Your task to perform on an android device: turn off sleep mode Image 0: 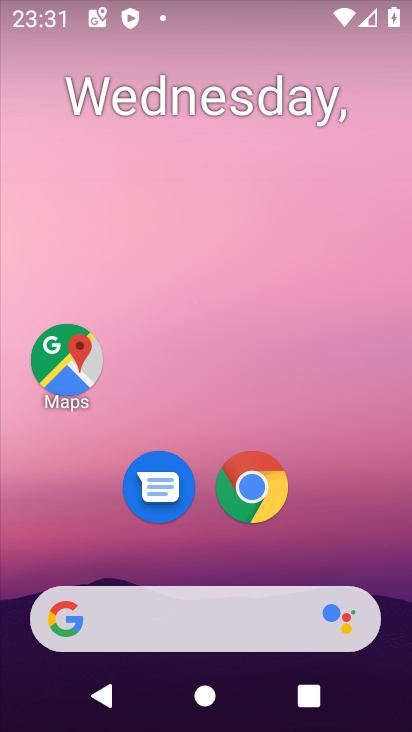
Step 0: drag from (373, 585) to (385, 5)
Your task to perform on an android device: turn off sleep mode Image 1: 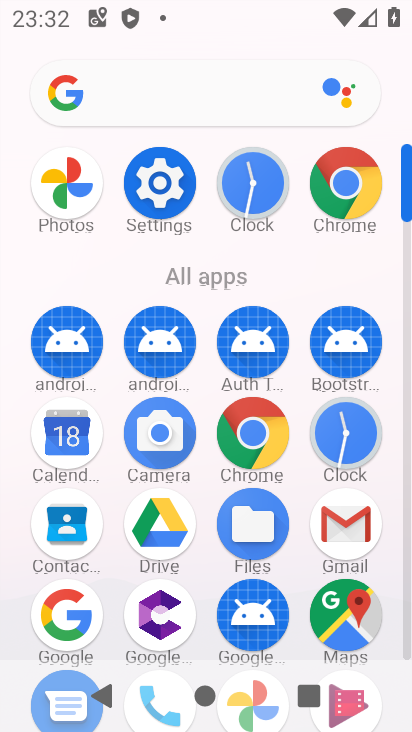
Step 1: click (164, 190)
Your task to perform on an android device: turn off sleep mode Image 2: 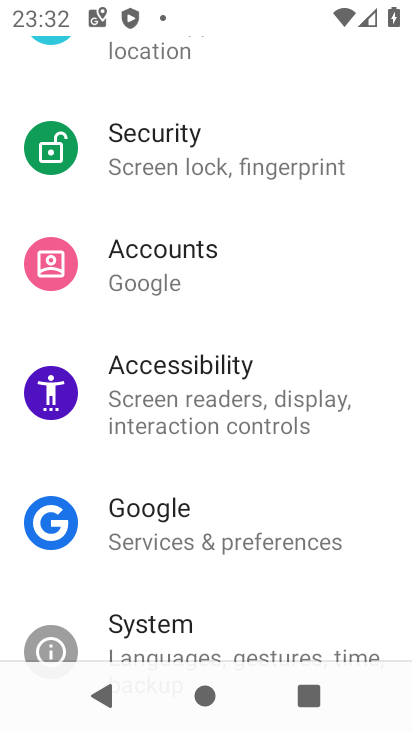
Step 2: drag from (375, 268) to (357, 571)
Your task to perform on an android device: turn off sleep mode Image 3: 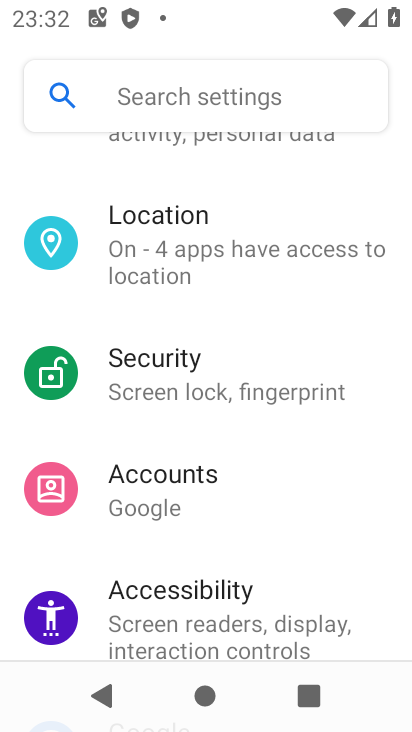
Step 3: drag from (335, 256) to (336, 566)
Your task to perform on an android device: turn off sleep mode Image 4: 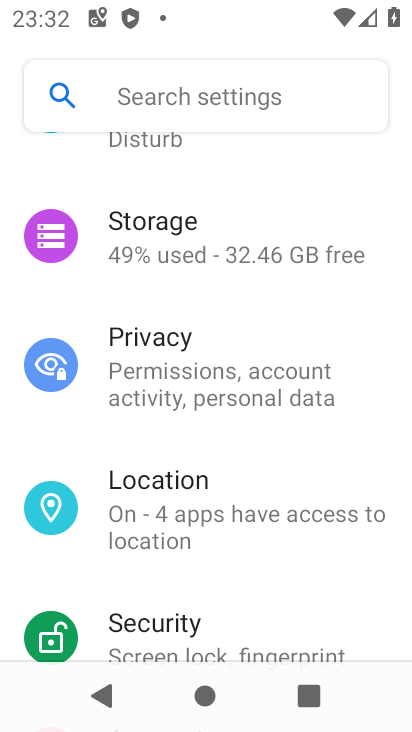
Step 4: drag from (355, 238) to (342, 610)
Your task to perform on an android device: turn off sleep mode Image 5: 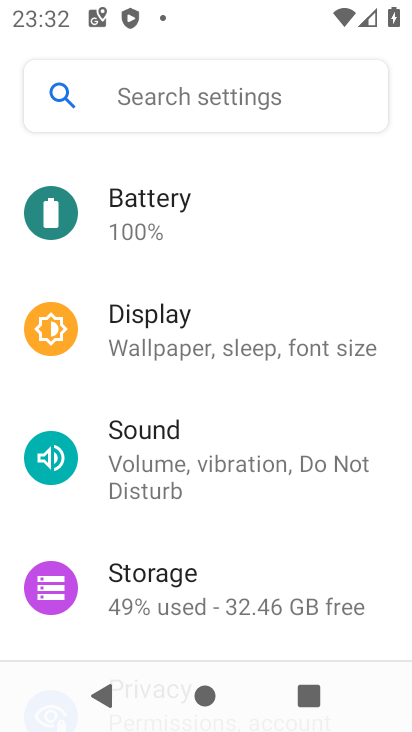
Step 5: click (160, 343)
Your task to perform on an android device: turn off sleep mode Image 6: 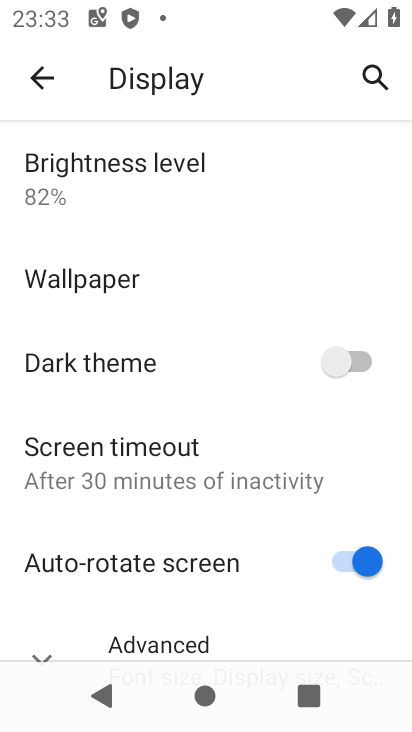
Step 6: drag from (187, 487) to (203, 127)
Your task to perform on an android device: turn off sleep mode Image 7: 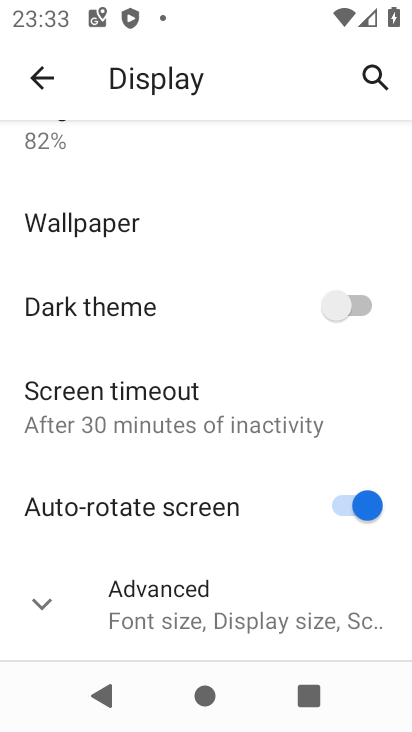
Step 7: click (44, 619)
Your task to perform on an android device: turn off sleep mode Image 8: 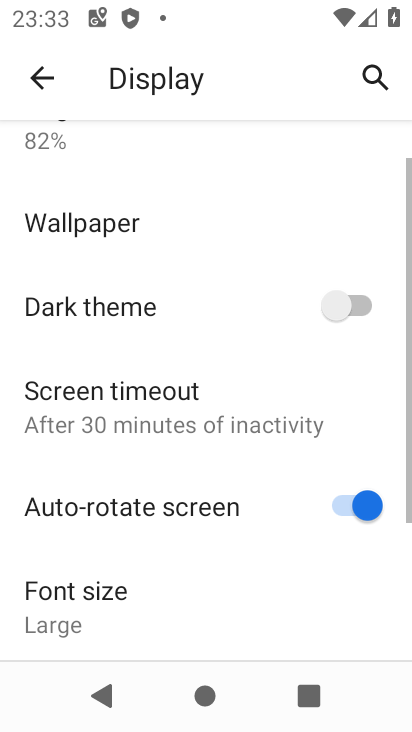
Step 8: task complete